Your task to perform on an android device: add a contact Image 0: 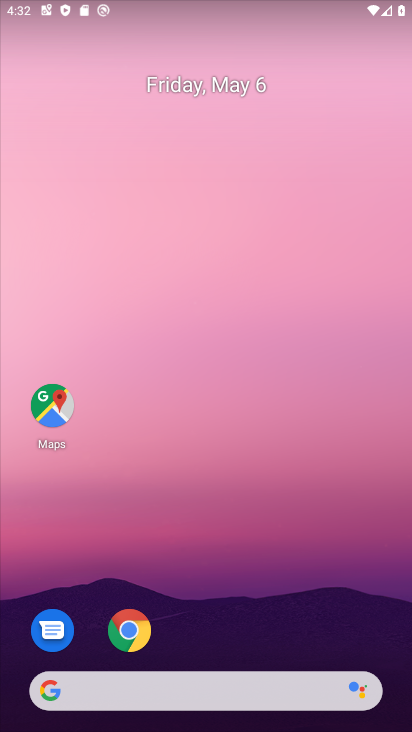
Step 0: drag from (231, 651) to (343, 90)
Your task to perform on an android device: add a contact Image 1: 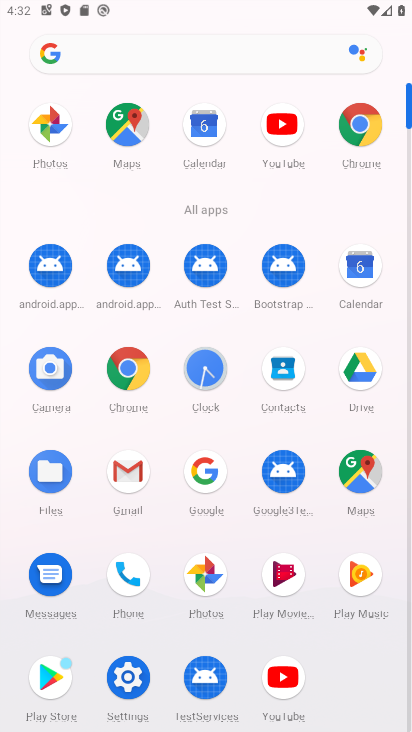
Step 1: click (297, 369)
Your task to perform on an android device: add a contact Image 2: 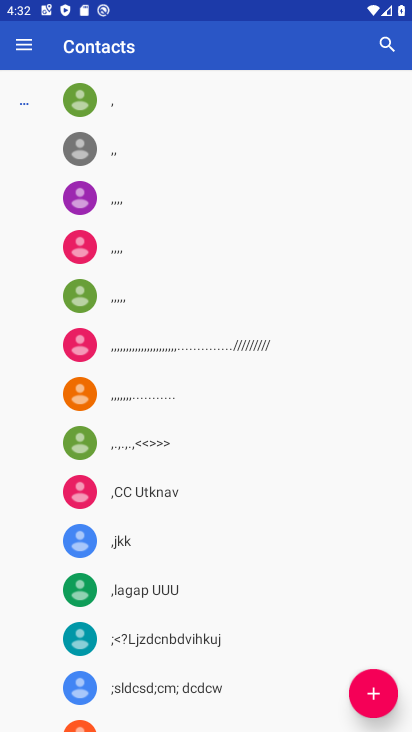
Step 2: click (369, 689)
Your task to perform on an android device: add a contact Image 3: 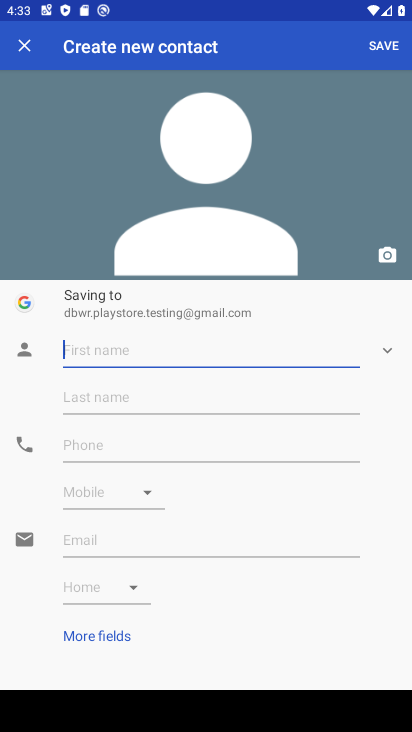
Step 3: type "njkoiulhiukm"
Your task to perform on an android device: add a contact Image 4: 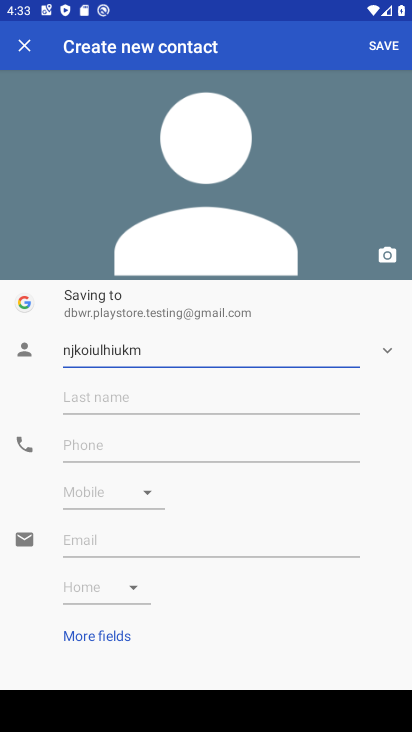
Step 4: click (219, 448)
Your task to perform on an android device: add a contact Image 5: 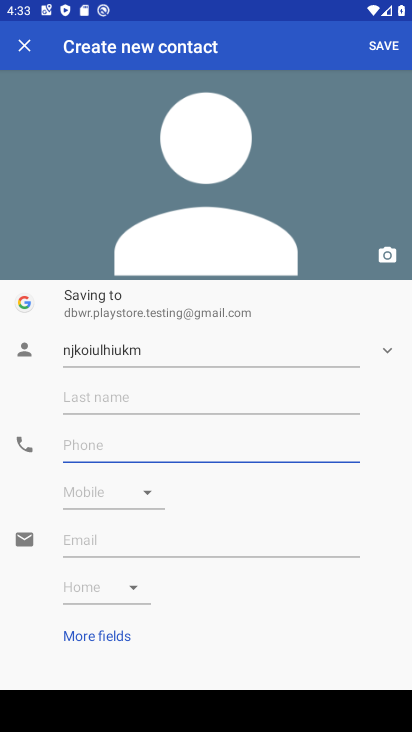
Step 5: type "67890878787"
Your task to perform on an android device: add a contact Image 6: 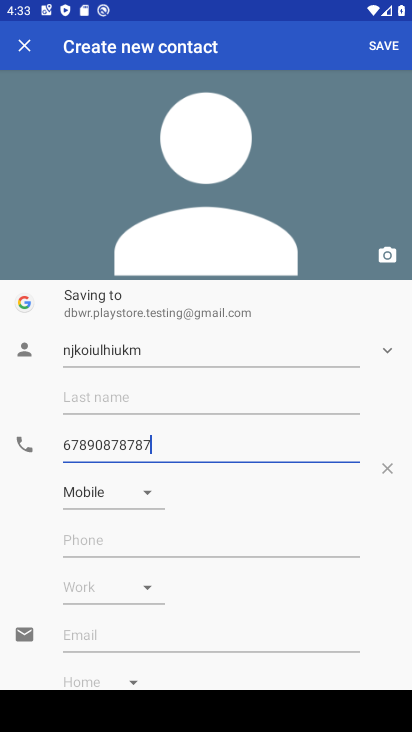
Step 6: click (380, 42)
Your task to perform on an android device: add a contact Image 7: 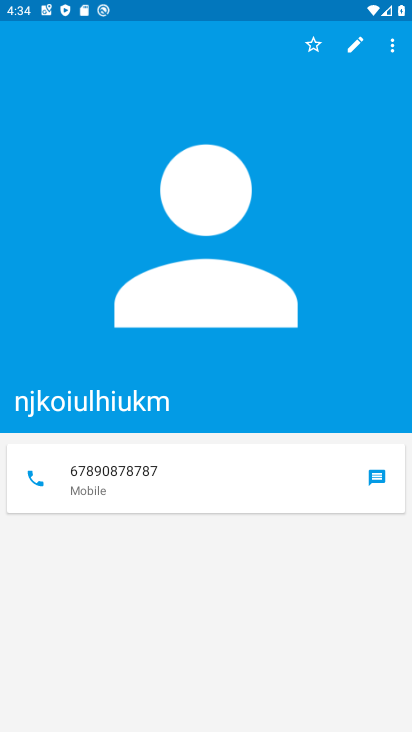
Step 7: task complete